Your task to perform on an android device: Turn on the flashlight Image 0: 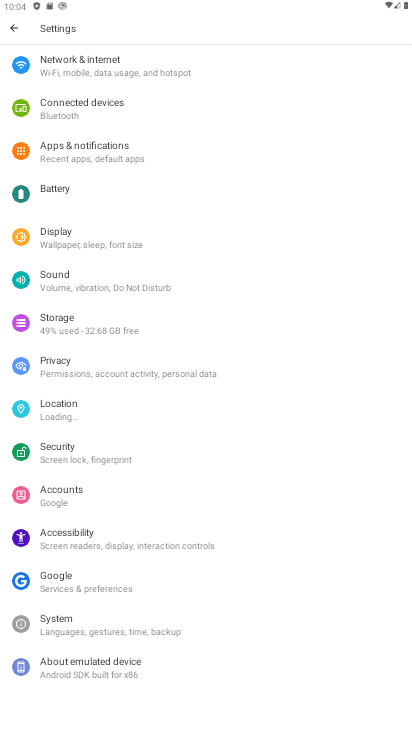
Step 0: drag from (234, 604) to (211, 298)
Your task to perform on an android device: Turn on the flashlight Image 1: 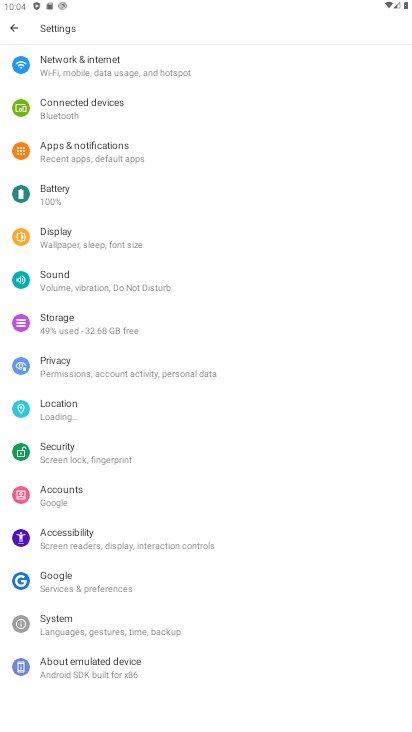
Step 1: task complete